Your task to perform on an android device: delete the emails in spam in the gmail app Image 0: 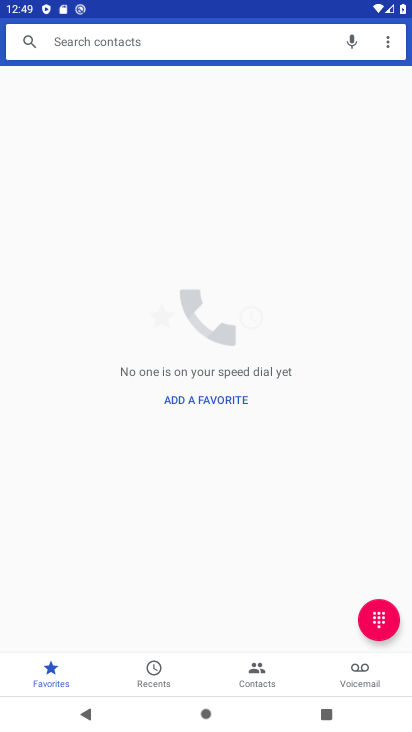
Step 0: press home button
Your task to perform on an android device: delete the emails in spam in the gmail app Image 1: 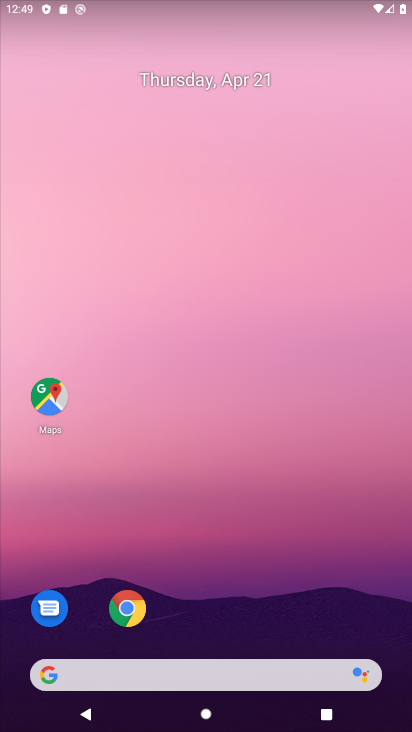
Step 1: drag from (272, 588) to (259, 43)
Your task to perform on an android device: delete the emails in spam in the gmail app Image 2: 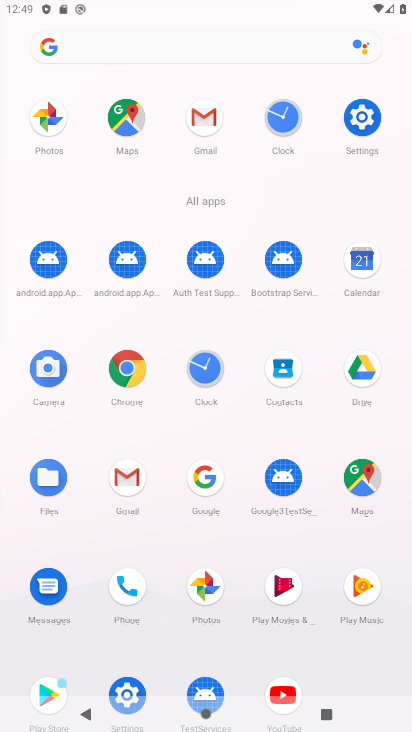
Step 2: click (206, 121)
Your task to perform on an android device: delete the emails in spam in the gmail app Image 3: 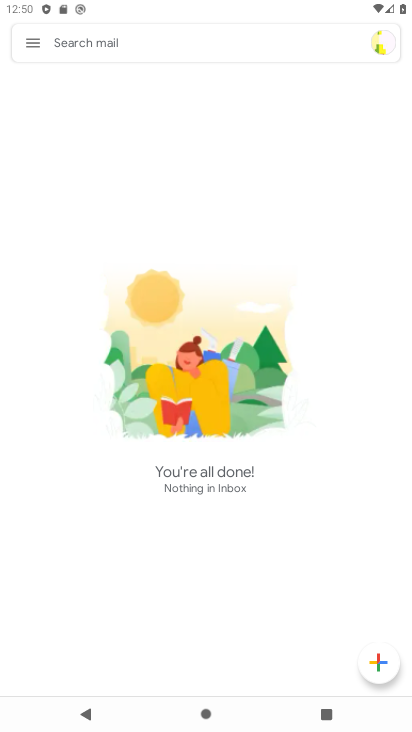
Step 3: click (33, 43)
Your task to perform on an android device: delete the emails in spam in the gmail app Image 4: 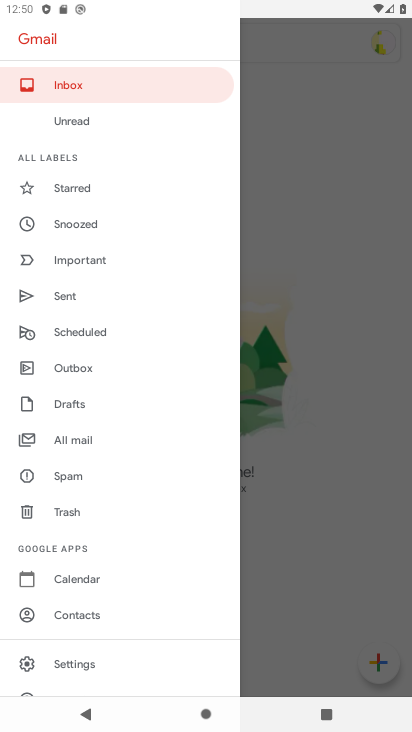
Step 4: click (78, 474)
Your task to perform on an android device: delete the emails in spam in the gmail app Image 5: 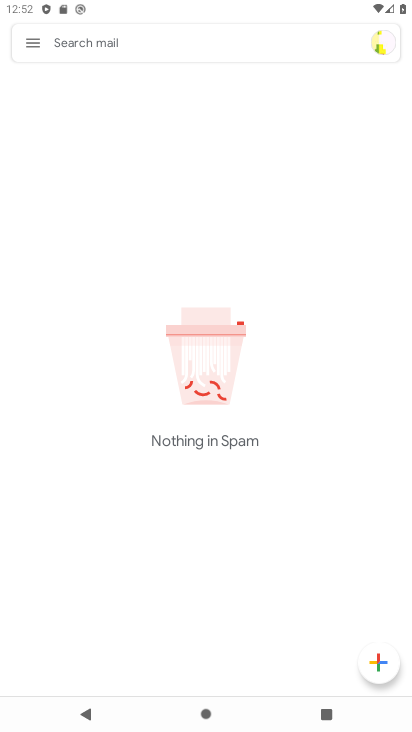
Step 5: task complete